Your task to perform on an android device: Is it going to rain this weekend? Image 0: 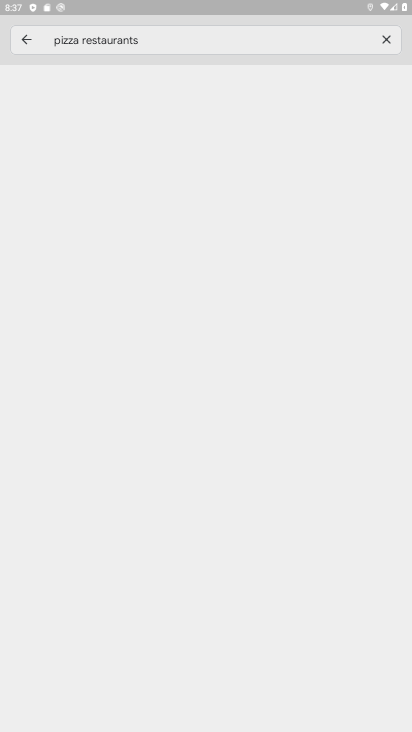
Step 0: press home button
Your task to perform on an android device: Is it going to rain this weekend? Image 1: 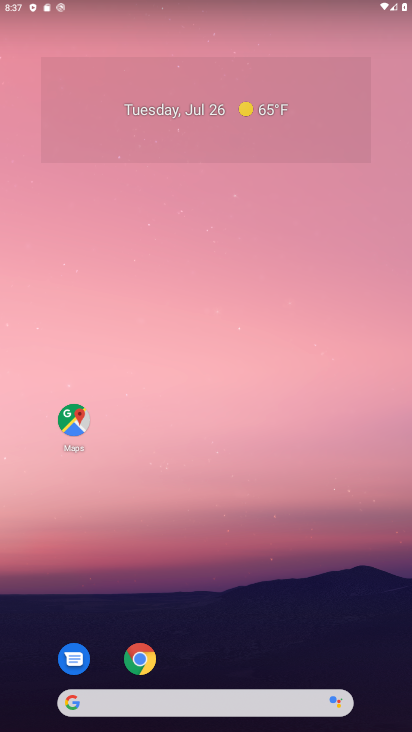
Step 1: drag from (191, 667) to (191, 45)
Your task to perform on an android device: Is it going to rain this weekend? Image 2: 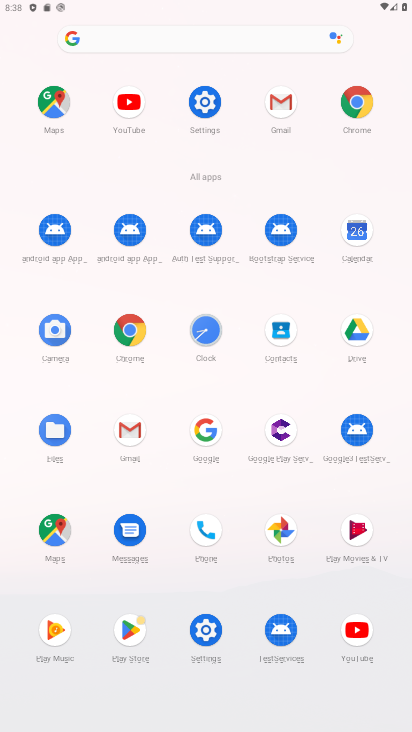
Step 2: click (208, 434)
Your task to perform on an android device: Is it going to rain this weekend? Image 3: 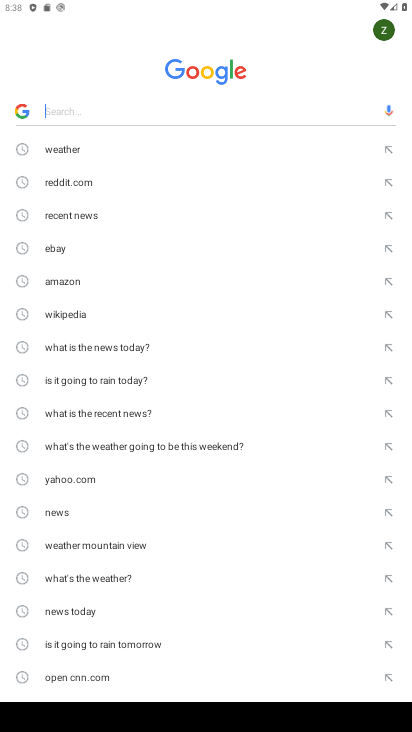
Step 3: click (57, 148)
Your task to perform on an android device: Is it going to rain this weekend? Image 4: 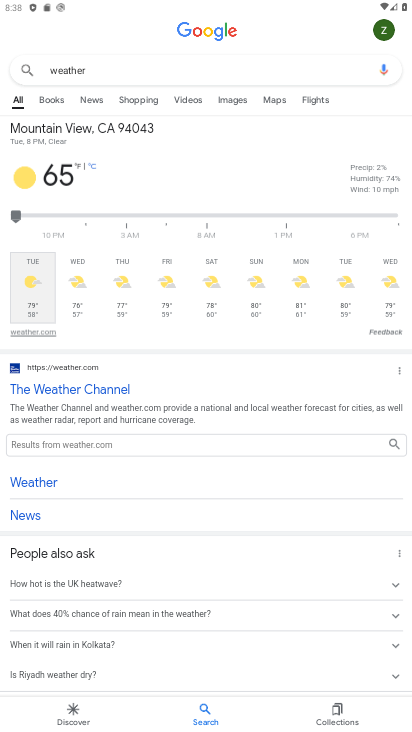
Step 4: click (20, 340)
Your task to perform on an android device: Is it going to rain this weekend? Image 5: 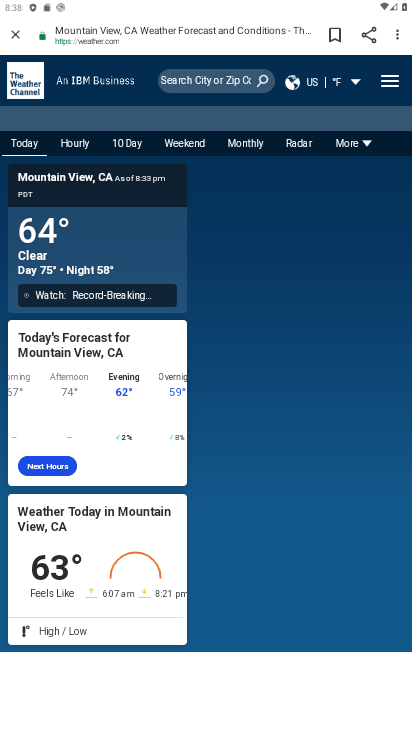
Step 5: click (167, 153)
Your task to perform on an android device: Is it going to rain this weekend? Image 6: 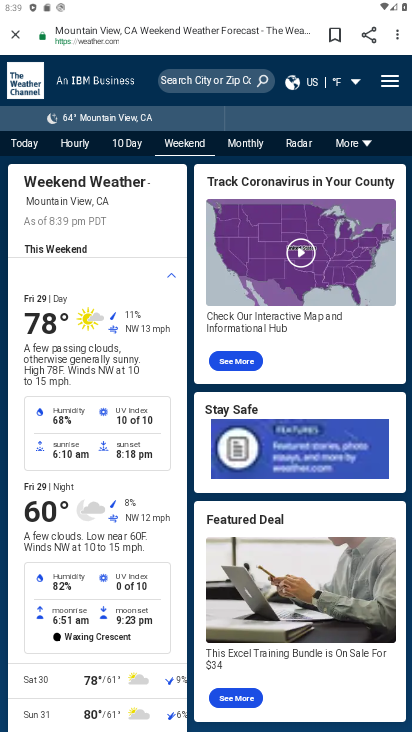
Step 6: task complete